Your task to perform on an android device: see sites visited before in the chrome app Image 0: 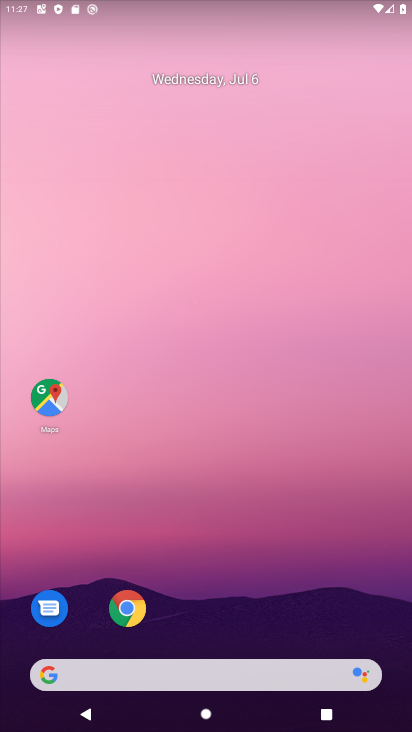
Step 0: drag from (297, 580) to (289, 70)
Your task to perform on an android device: see sites visited before in the chrome app Image 1: 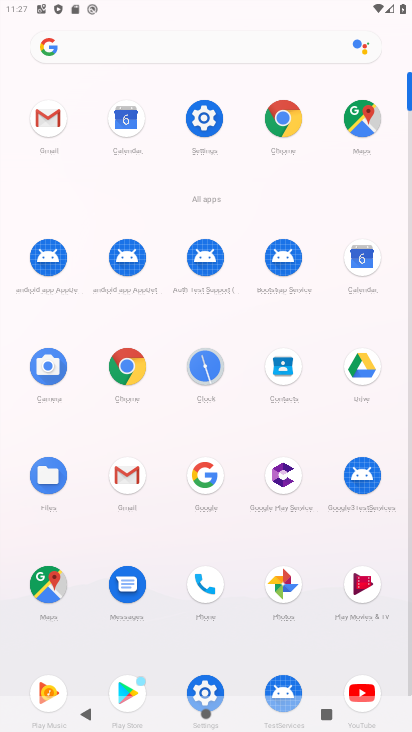
Step 1: click (272, 115)
Your task to perform on an android device: see sites visited before in the chrome app Image 2: 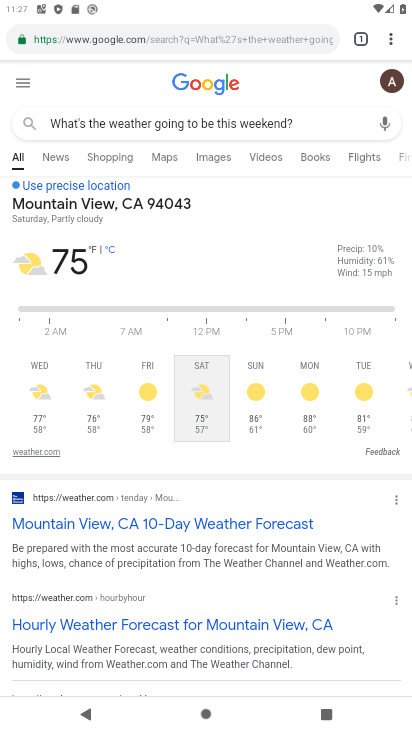
Step 2: task complete